Your task to perform on an android device: delete the emails in spam in the gmail app Image 0: 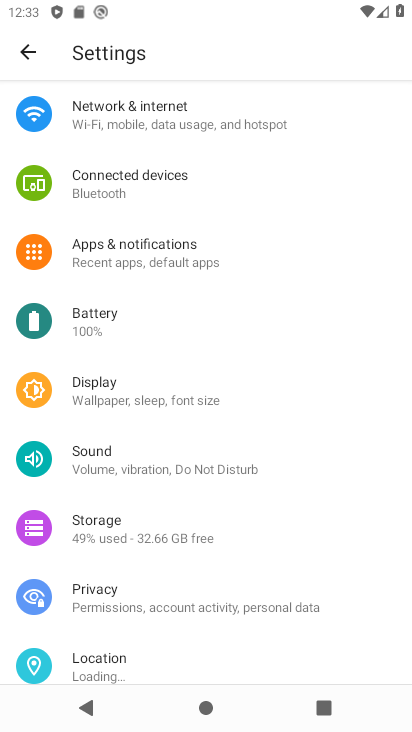
Step 0: press home button
Your task to perform on an android device: delete the emails in spam in the gmail app Image 1: 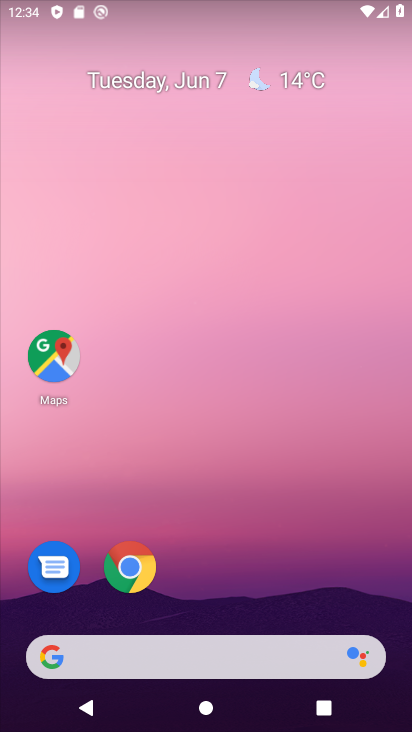
Step 1: drag from (265, 602) to (304, 11)
Your task to perform on an android device: delete the emails in spam in the gmail app Image 2: 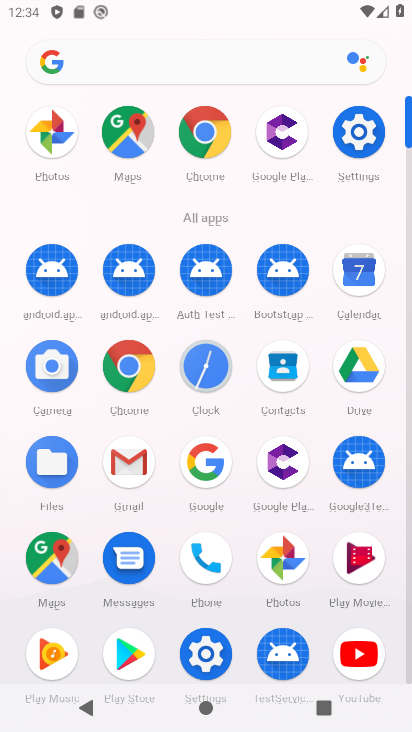
Step 2: click (134, 465)
Your task to perform on an android device: delete the emails in spam in the gmail app Image 3: 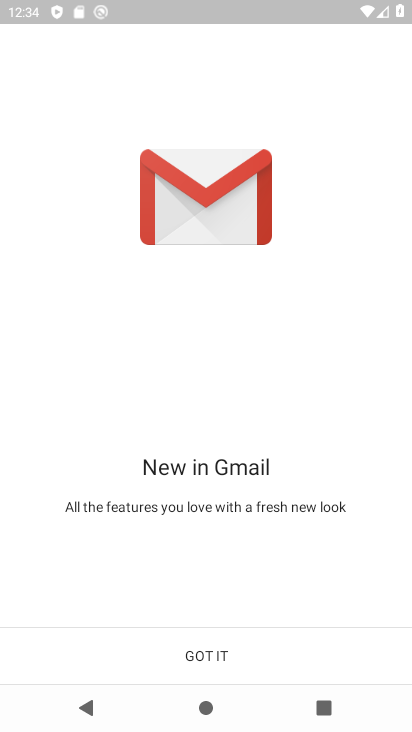
Step 3: click (201, 648)
Your task to perform on an android device: delete the emails in spam in the gmail app Image 4: 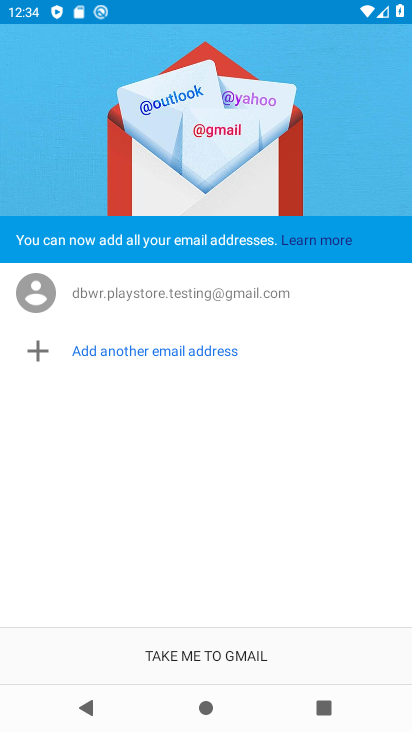
Step 4: click (244, 662)
Your task to perform on an android device: delete the emails in spam in the gmail app Image 5: 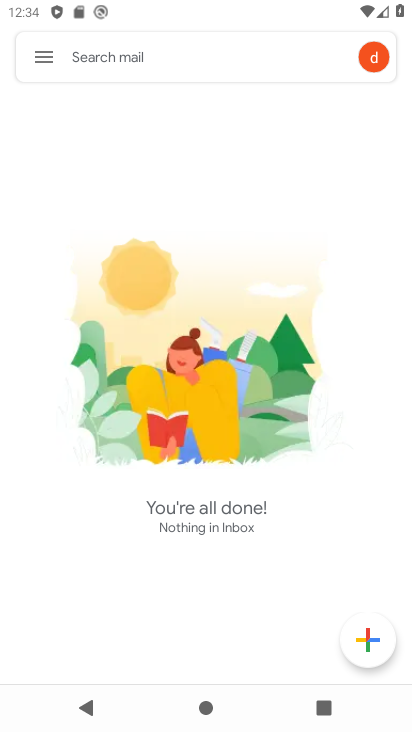
Step 5: click (41, 49)
Your task to perform on an android device: delete the emails in spam in the gmail app Image 6: 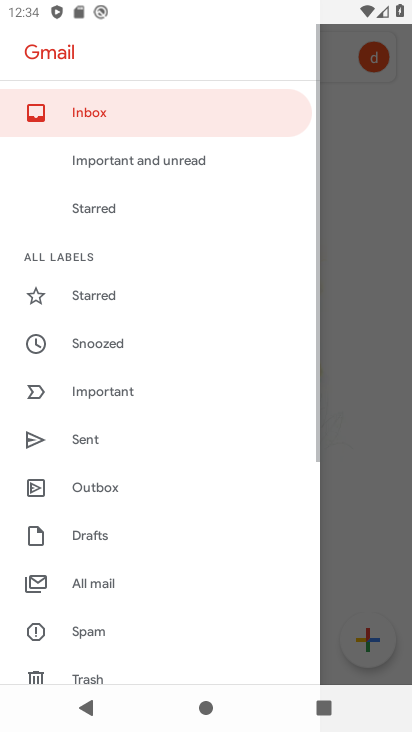
Step 6: drag from (144, 595) to (125, 280)
Your task to perform on an android device: delete the emails in spam in the gmail app Image 7: 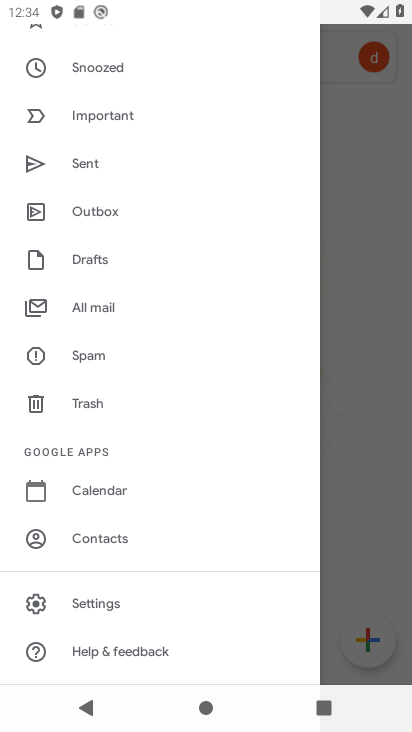
Step 7: click (78, 349)
Your task to perform on an android device: delete the emails in spam in the gmail app Image 8: 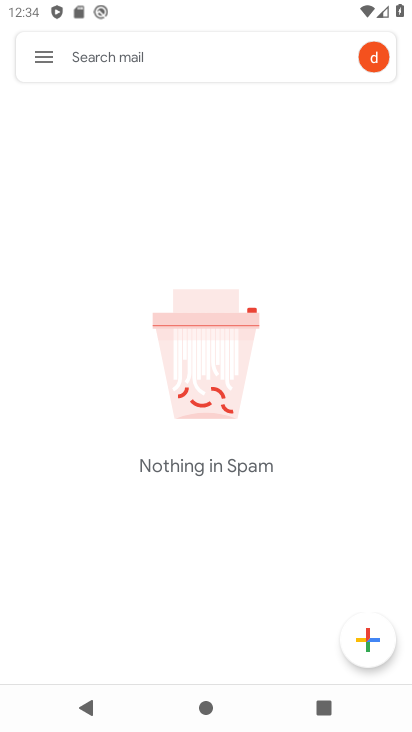
Step 8: task complete